Your task to perform on an android device: change notification settings in the gmail app Image 0: 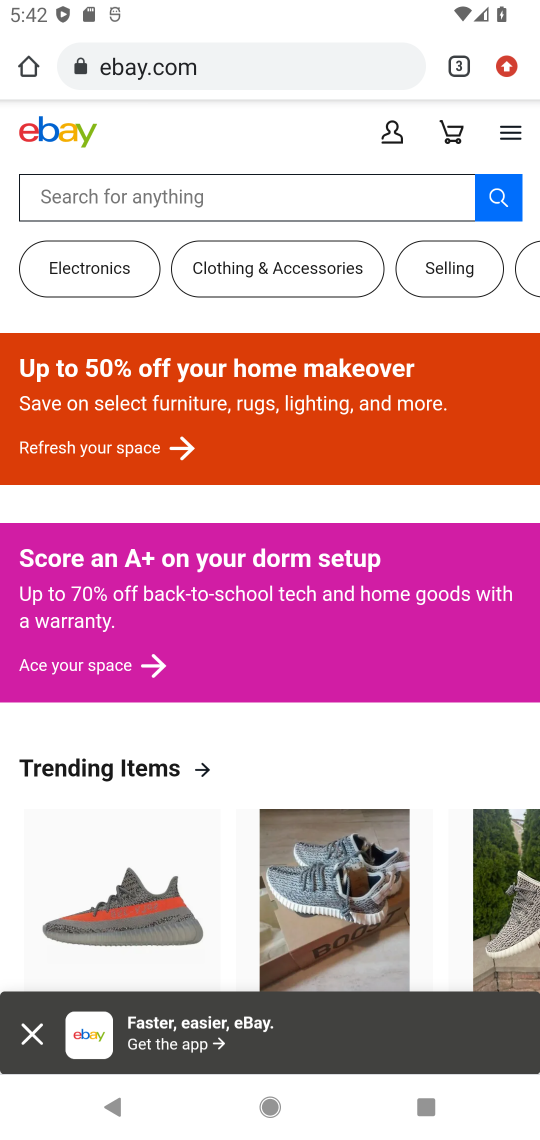
Step 0: press home button
Your task to perform on an android device: change notification settings in the gmail app Image 1: 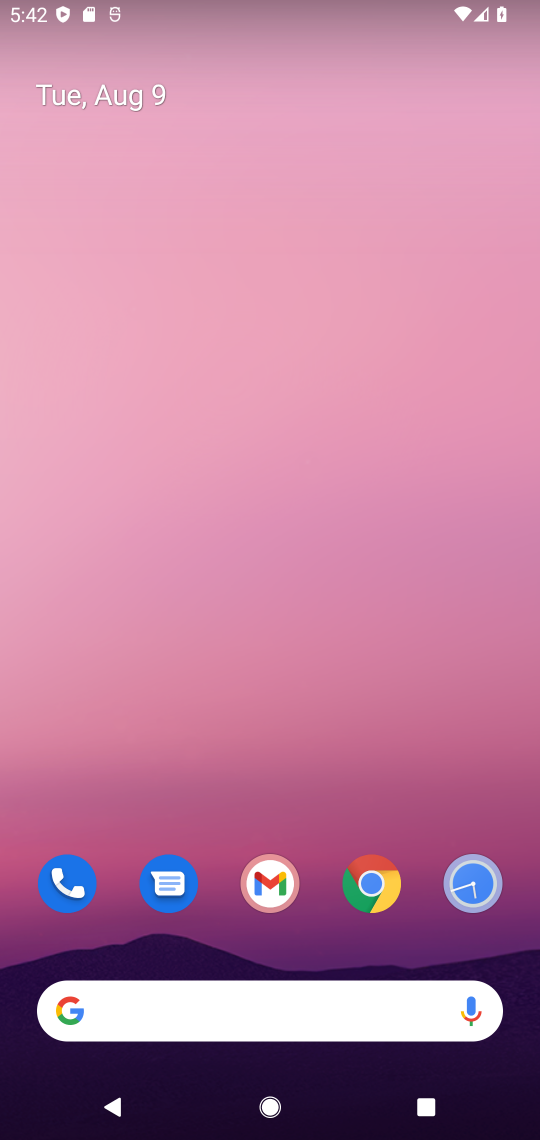
Step 1: click (276, 871)
Your task to perform on an android device: change notification settings in the gmail app Image 2: 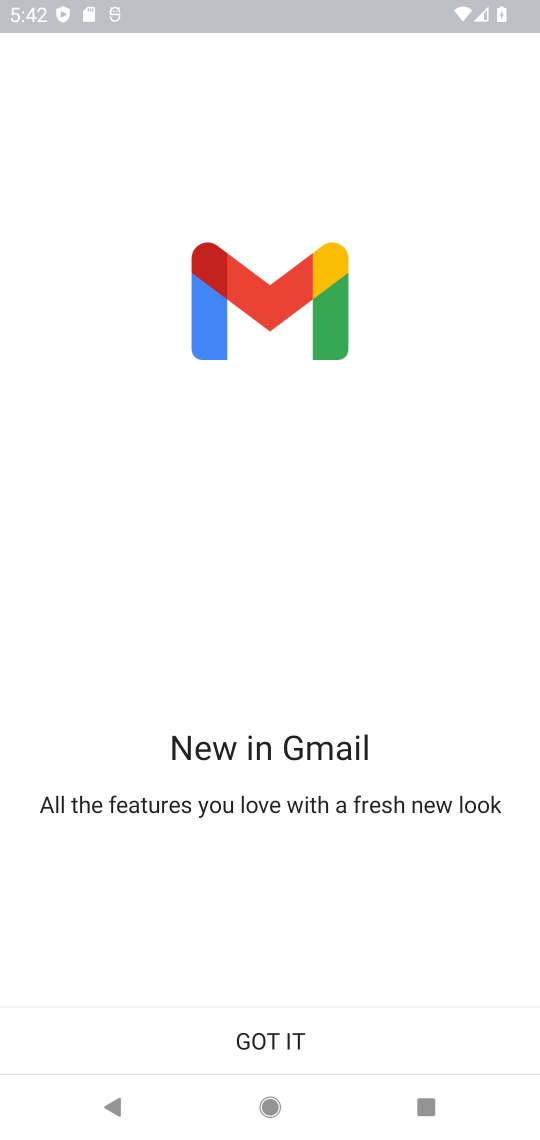
Step 2: click (258, 1055)
Your task to perform on an android device: change notification settings in the gmail app Image 3: 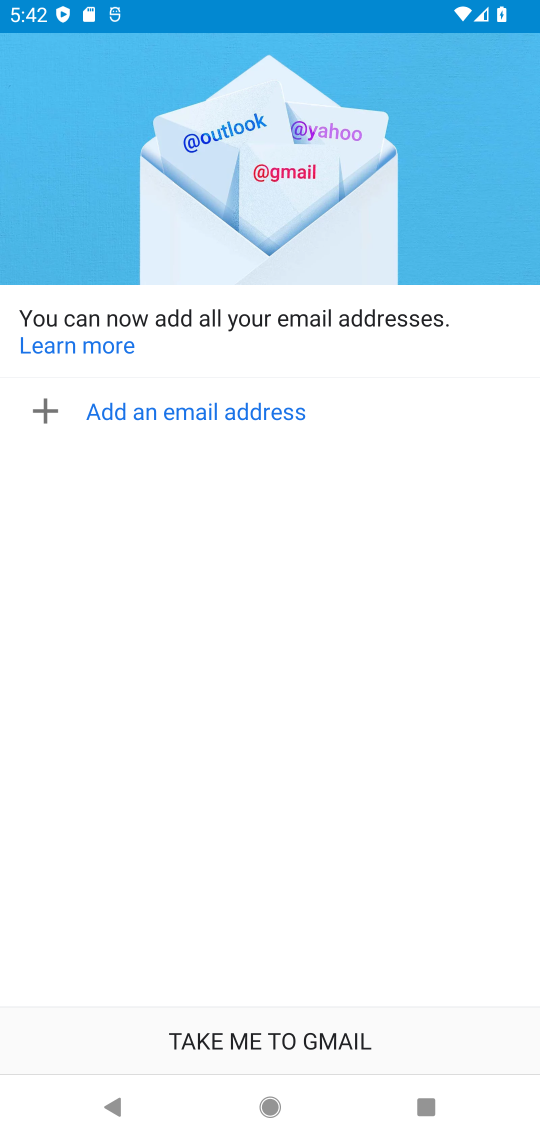
Step 3: click (331, 1021)
Your task to perform on an android device: change notification settings in the gmail app Image 4: 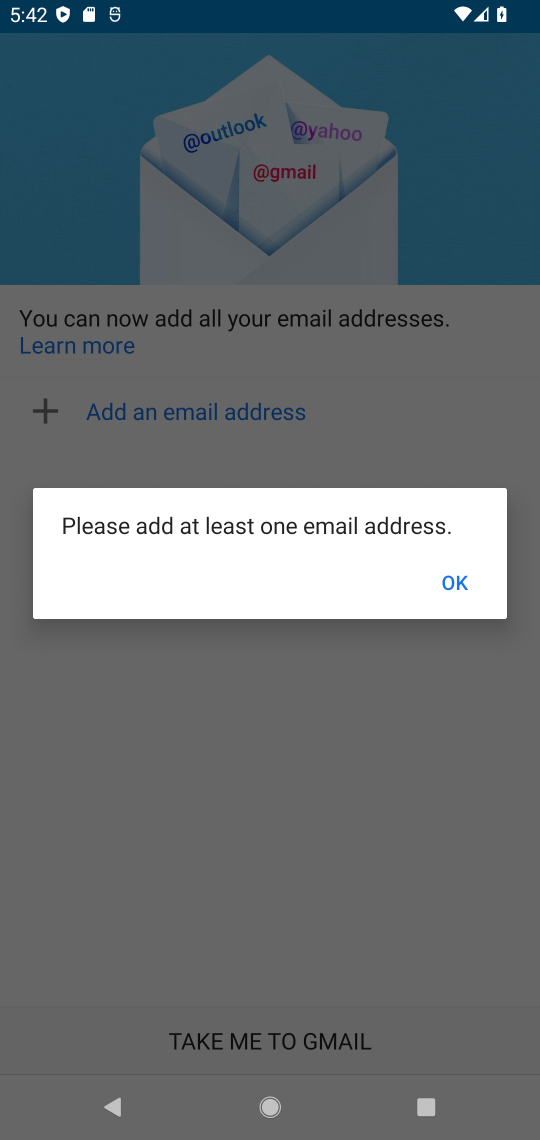
Step 4: click (453, 576)
Your task to perform on an android device: change notification settings in the gmail app Image 5: 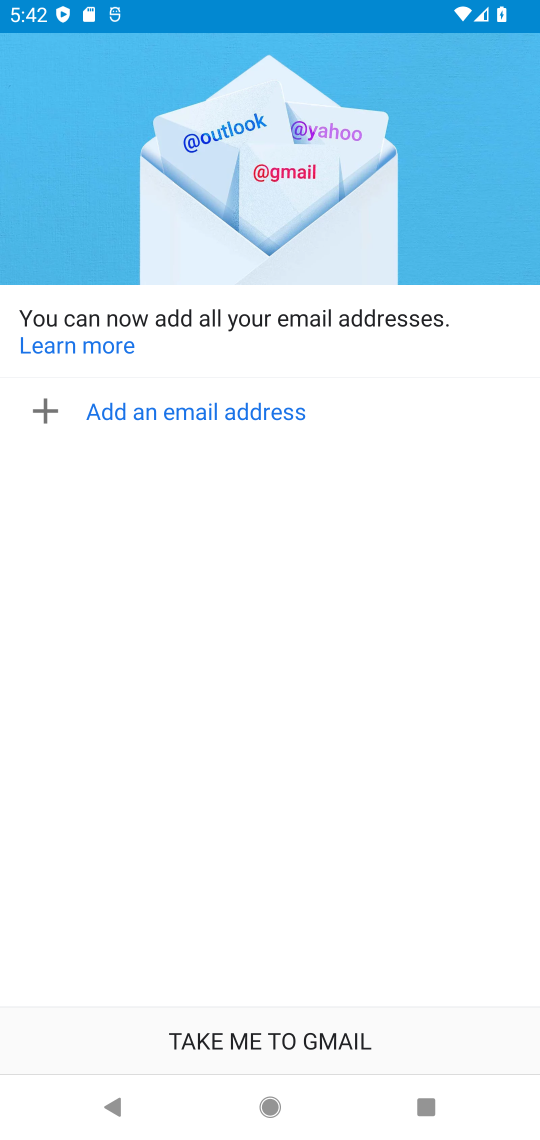
Step 5: task complete